Your task to perform on an android device: Search for seafood restaurants on Google Maps Image 0: 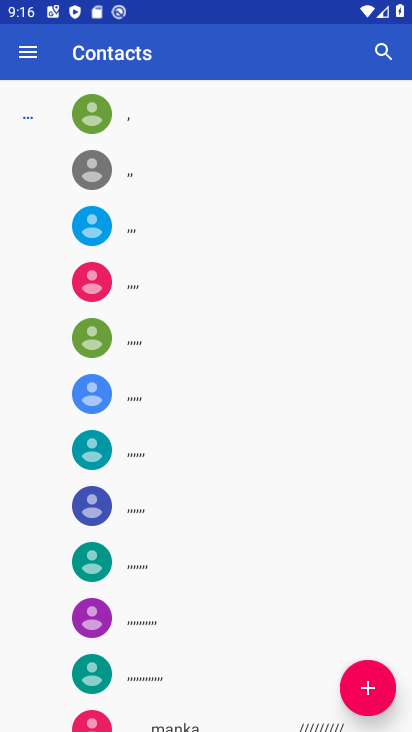
Step 0: press home button
Your task to perform on an android device: Search for seafood restaurants on Google Maps Image 1: 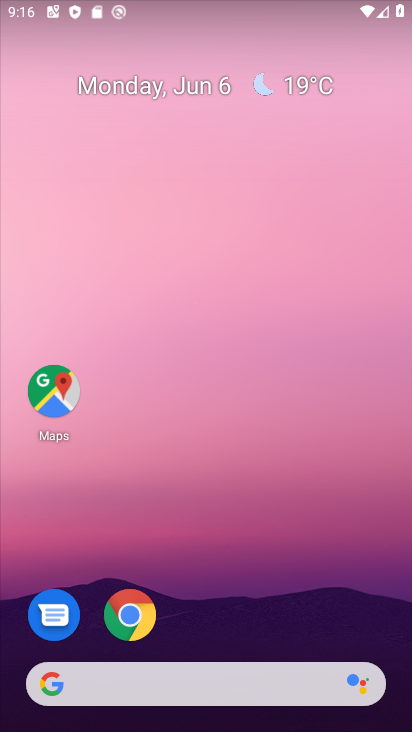
Step 1: click (75, 389)
Your task to perform on an android device: Search for seafood restaurants on Google Maps Image 2: 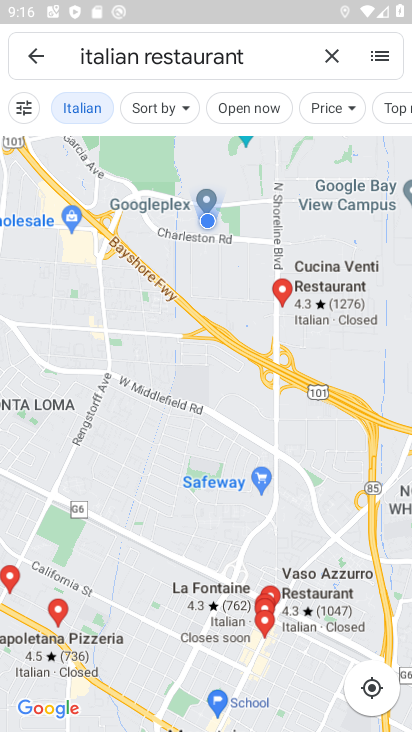
Step 2: click (334, 58)
Your task to perform on an android device: Search for seafood restaurants on Google Maps Image 3: 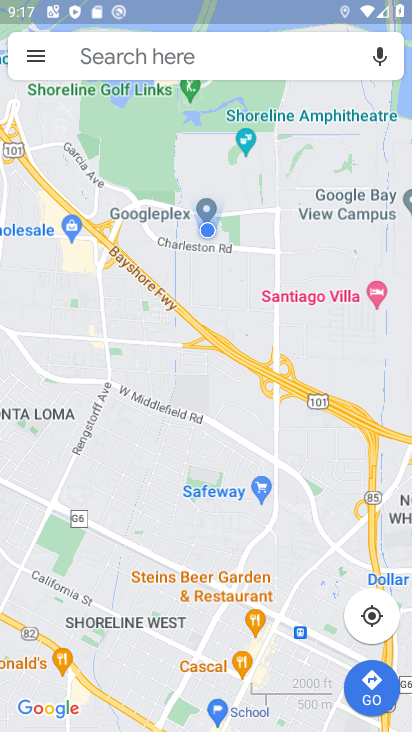
Step 3: click (266, 59)
Your task to perform on an android device: Search for seafood restaurants on Google Maps Image 4: 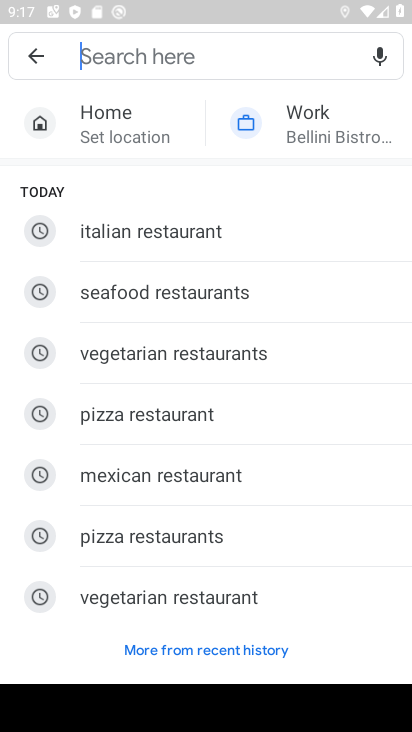
Step 4: click (153, 288)
Your task to perform on an android device: Search for seafood restaurants on Google Maps Image 5: 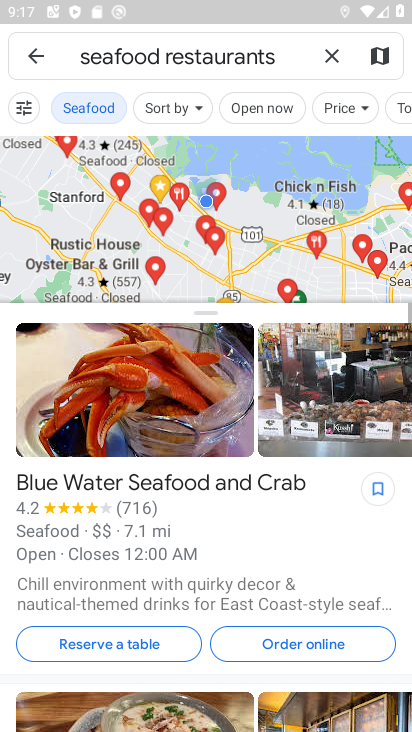
Step 5: task complete